Your task to perform on an android device: open device folders in google photos Image 0: 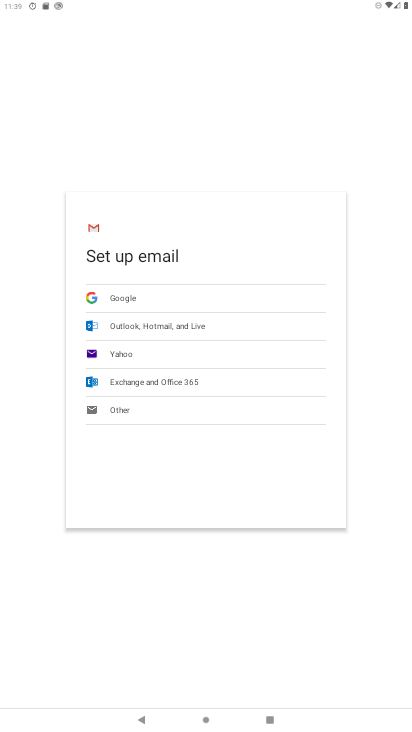
Step 0: press home button
Your task to perform on an android device: open device folders in google photos Image 1: 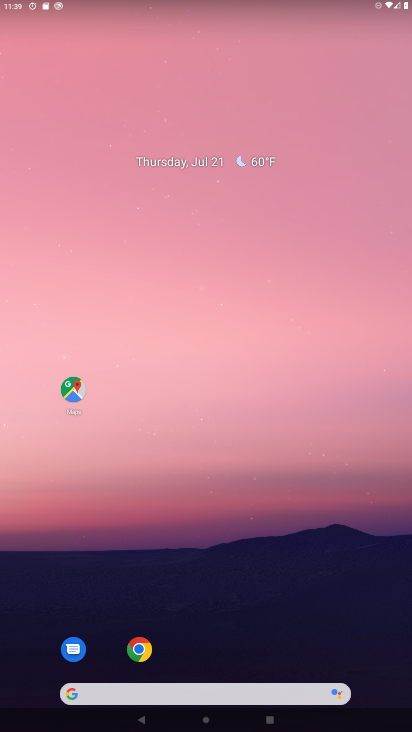
Step 1: drag from (389, 703) to (349, 63)
Your task to perform on an android device: open device folders in google photos Image 2: 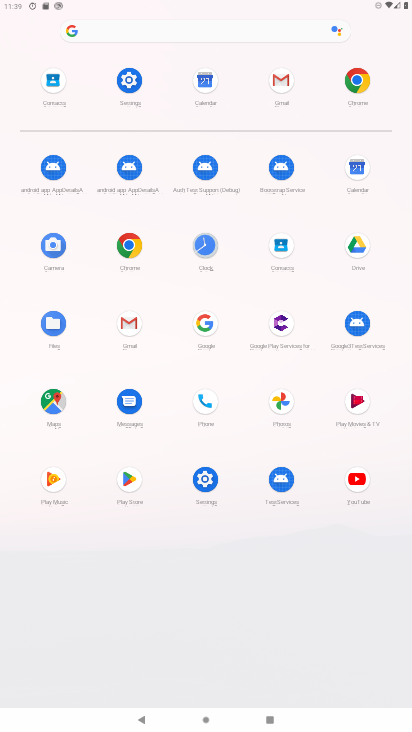
Step 2: click (280, 404)
Your task to perform on an android device: open device folders in google photos Image 3: 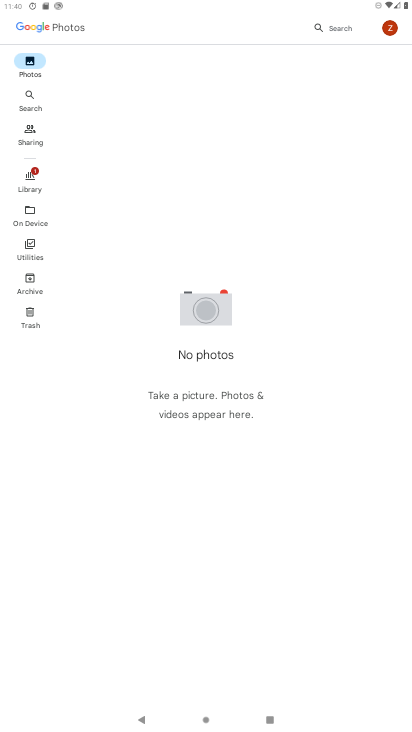
Step 3: task complete